Your task to perform on an android device: Open Amazon Image 0: 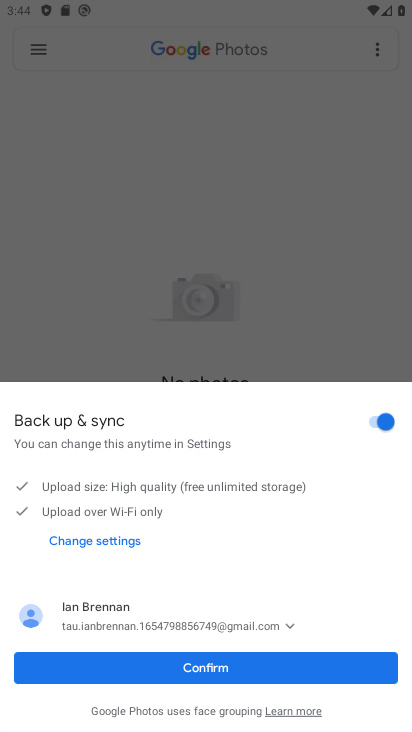
Step 0: click (269, 673)
Your task to perform on an android device: Open Amazon Image 1: 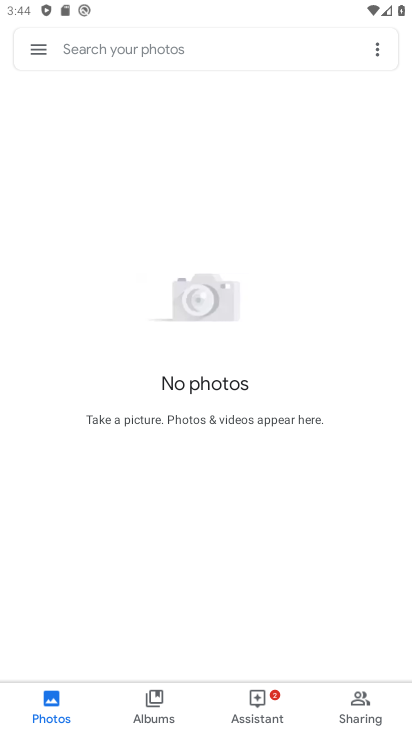
Step 1: press home button
Your task to perform on an android device: Open Amazon Image 2: 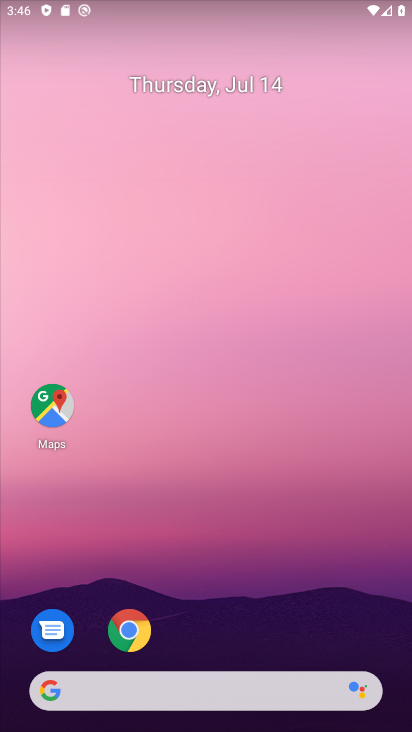
Step 2: drag from (190, 500) to (219, 29)
Your task to perform on an android device: Open Amazon Image 3: 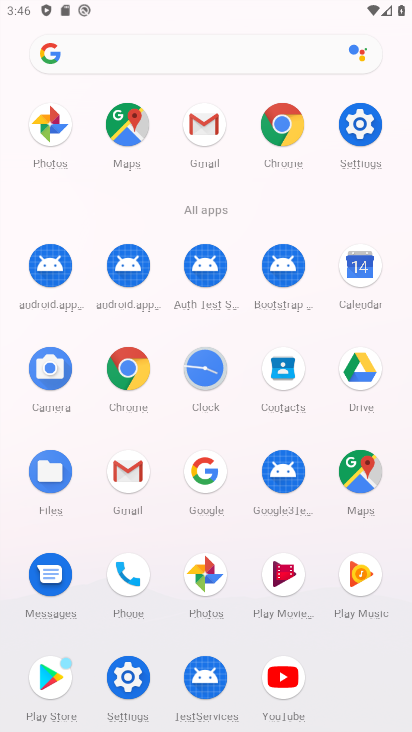
Step 3: click (134, 349)
Your task to perform on an android device: Open Amazon Image 4: 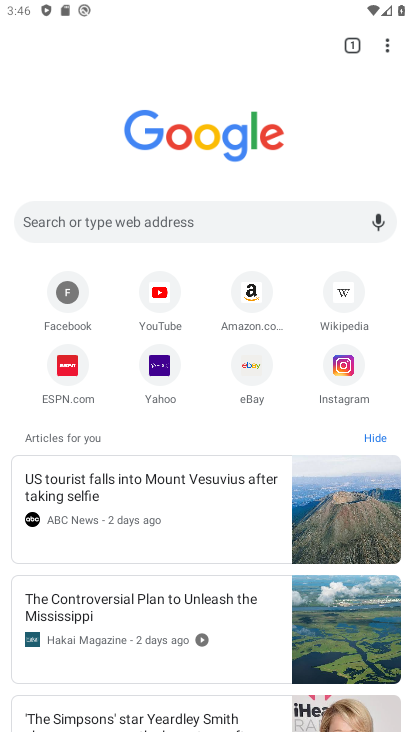
Step 4: click (236, 219)
Your task to perform on an android device: Open Amazon Image 5: 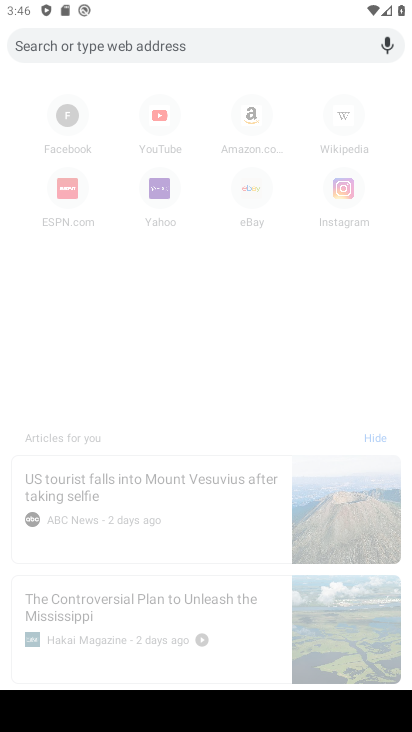
Step 5: press back button
Your task to perform on an android device: Open Amazon Image 6: 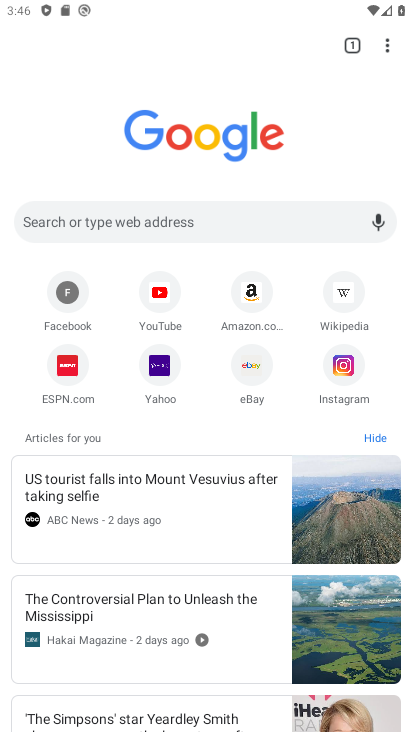
Step 6: click (252, 295)
Your task to perform on an android device: Open Amazon Image 7: 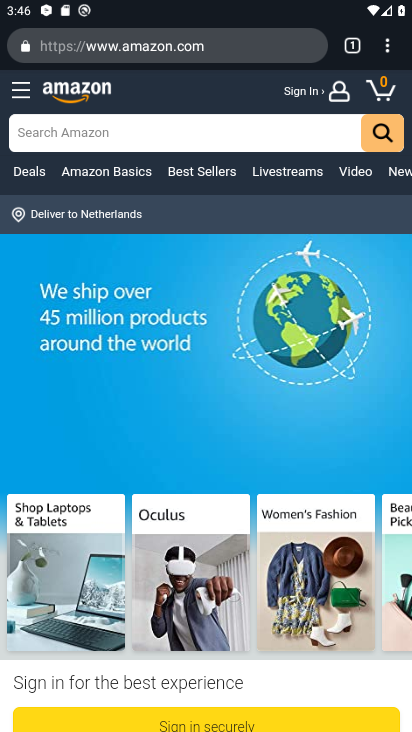
Step 7: task complete